Your task to perform on an android device: Go to notification settings Image 0: 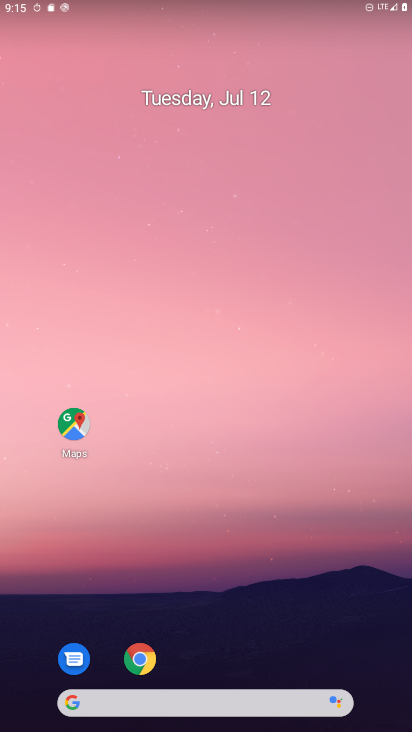
Step 0: drag from (306, 392) to (238, 23)
Your task to perform on an android device: Go to notification settings Image 1: 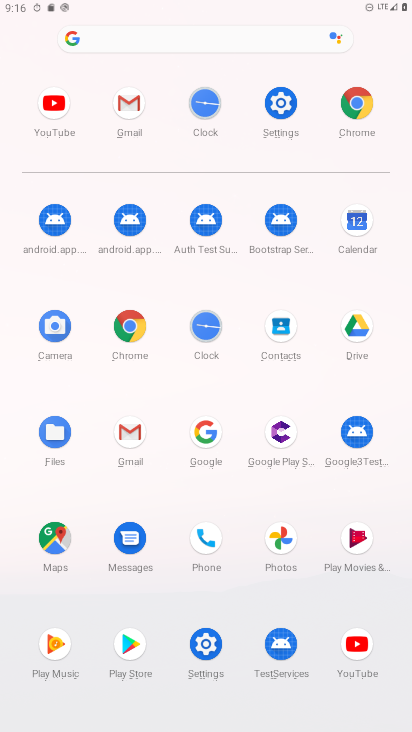
Step 1: click (202, 637)
Your task to perform on an android device: Go to notification settings Image 2: 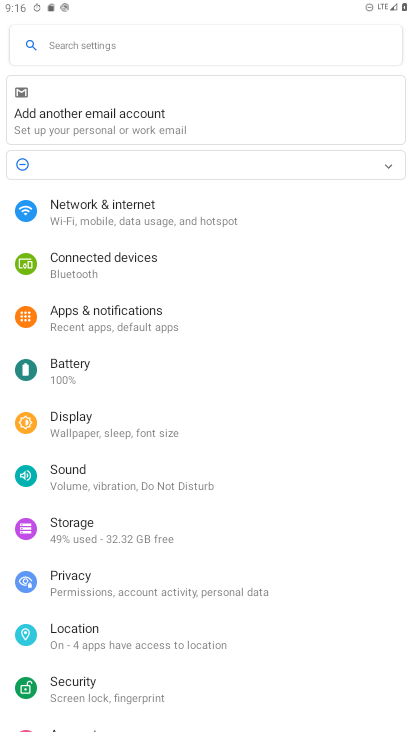
Step 2: click (142, 334)
Your task to perform on an android device: Go to notification settings Image 3: 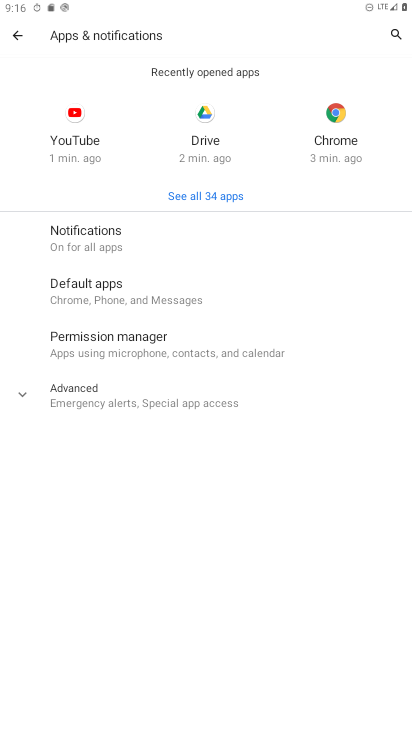
Step 3: click (165, 233)
Your task to perform on an android device: Go to notification settings Image 4: 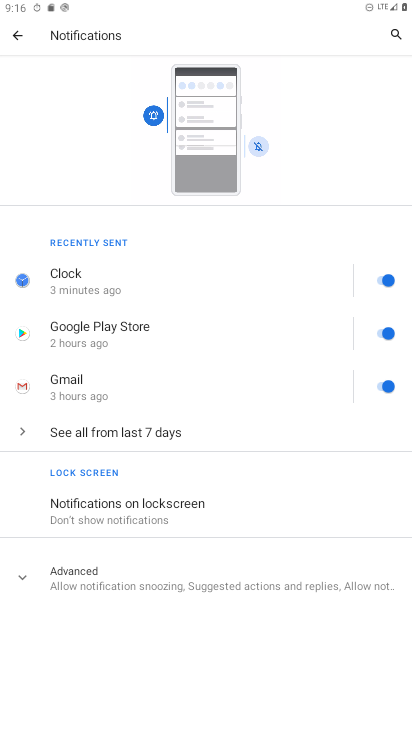
Step 4: click (155, 237)
Your task to perform on an android device: Go to notification settings Image 5: 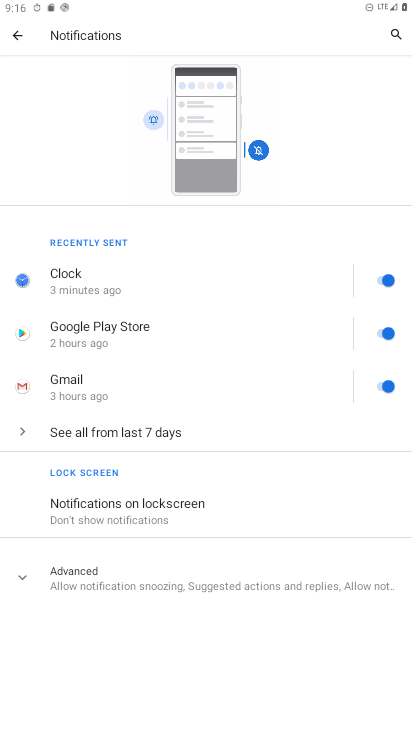
Step 5: task complete